Your task to perform on an android device: toggle show notifications on the lock screen Image 0: 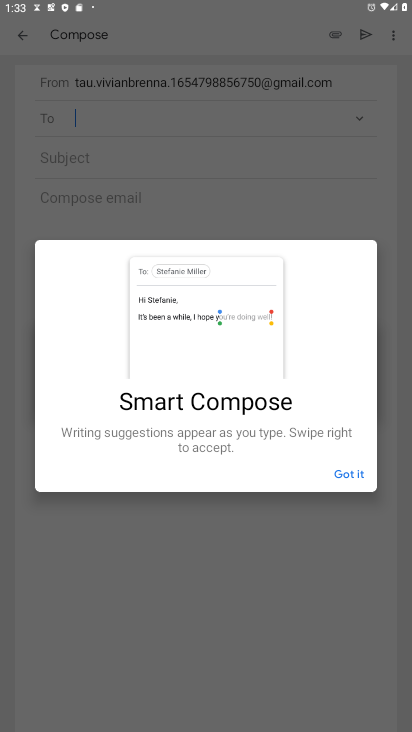
Step 0: press home button
Your task to perform on an android device: toggle show notifications on the lock screen Image 1: 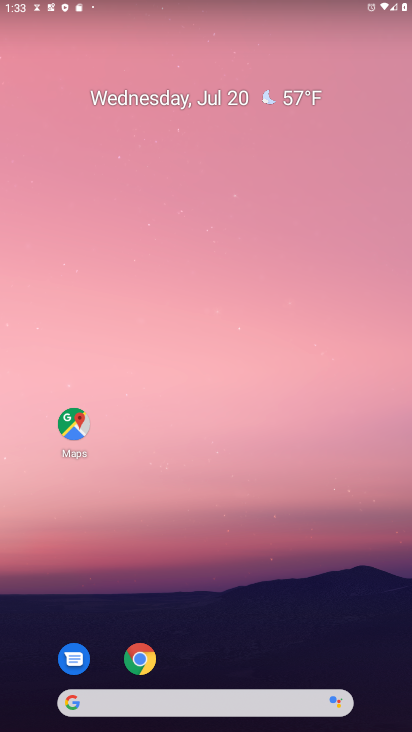
Step 1: drag from (217, 672) to (273, 3)
Your task to perform on an android device: toggle show notifications on the lock screen Image 2: 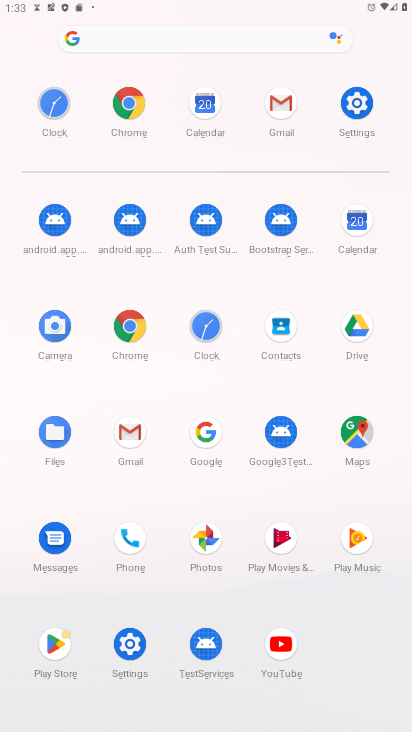
Step 2: click (356, 94)
Your task to perform on an android device: toggle show notifications on the lock screen Image 3: 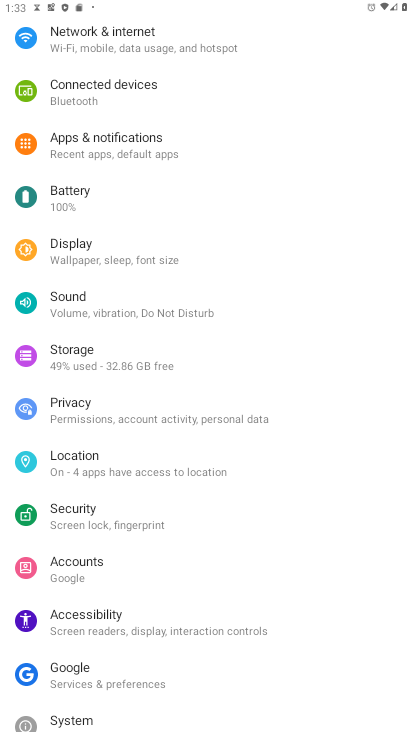
Step 3: click (162, 140)
Your task to perform on an android device: toggle show notifications on the lock screen Image 4: 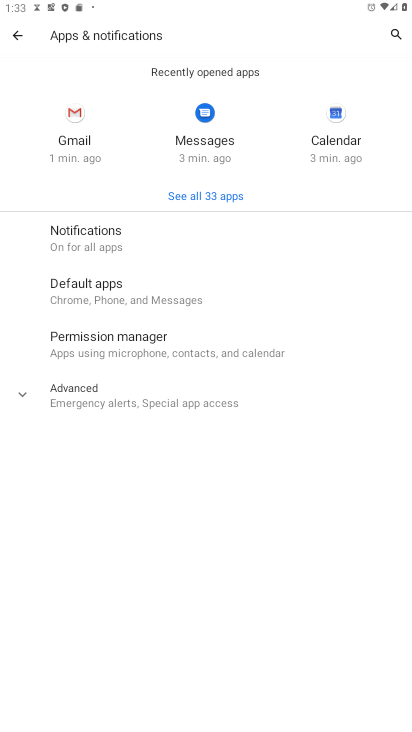
Step 4: click (138, 234)
Your task to perform on an android device: toggle show notifications on the lock screen Image 5: 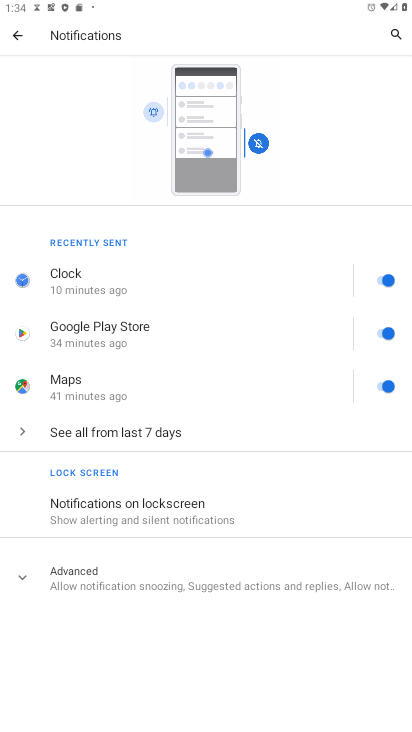
Step 5: click (218, 507)
Your task to perform on an android device: toggle show notifications on the lock screen Image 6: 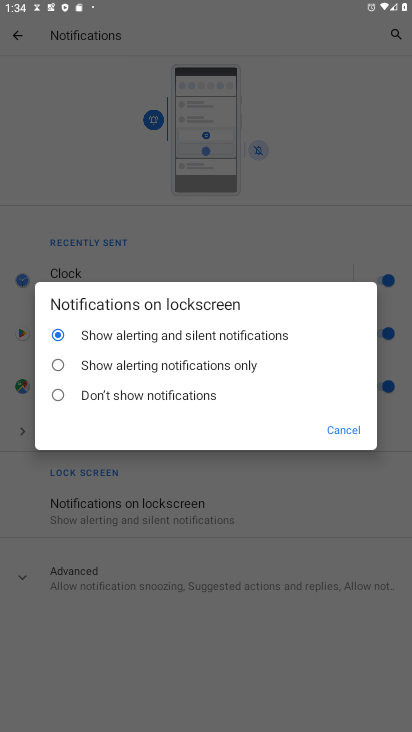
Step 6: click (51, 362)
Your task to perform on an android device: toggle show notifications on the lock screen Image 7: 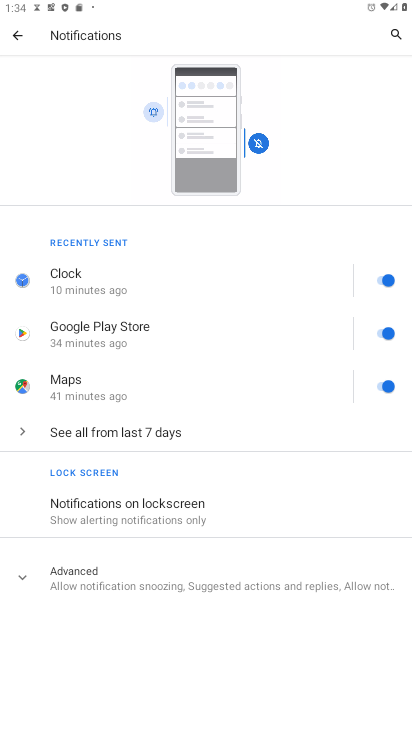
Step 7: task complete